Your task to perform on an android device: Open the phone app and click the voicemail tab. Image 0: 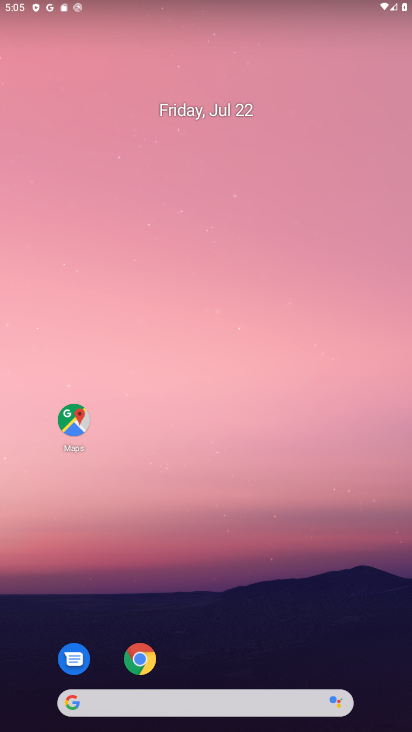
Step 0: press home button
Your task to perform on an android device: Open the phone app and click the voicemail tab. Image 1: 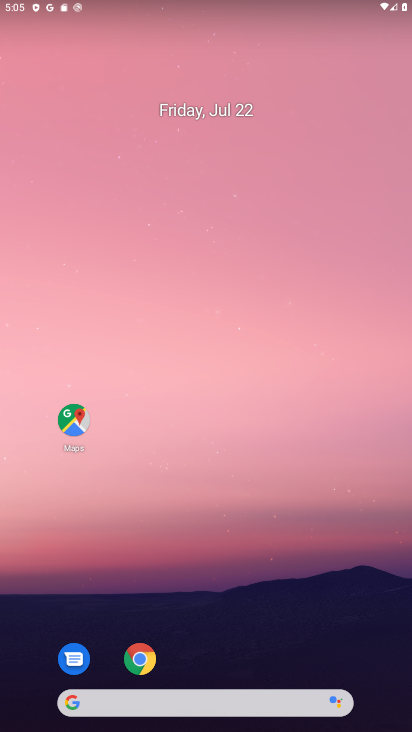
Step 1: drag from (219, 673) to (257, 1)
Your task to perform on an android device: Open the phone app and click the voicemail tab. Image 2: 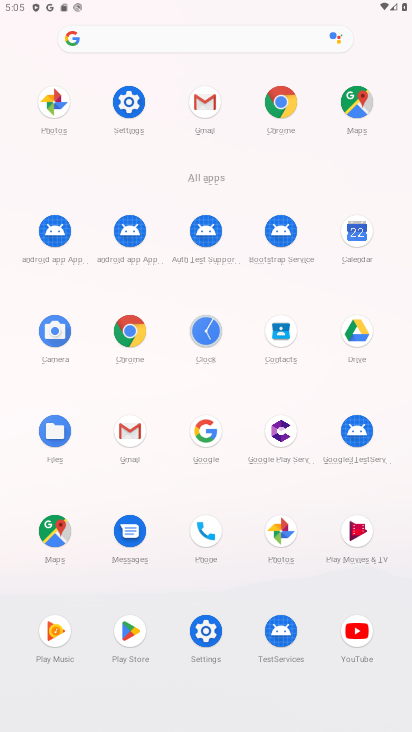
Step 2: click (198, 523)
Your task to perform on an android device: Open the phone app and click the voicemail tab. Image 3: 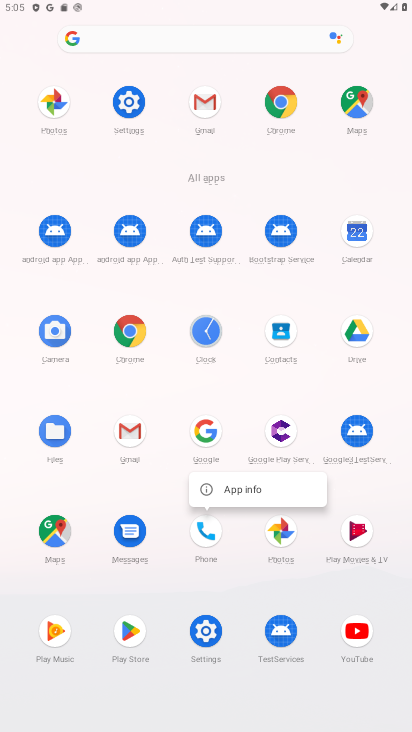
Step 3: click (198, 533)
Your task to perform on an android device: Open the phone app and click the voicemail tab. Image 4: 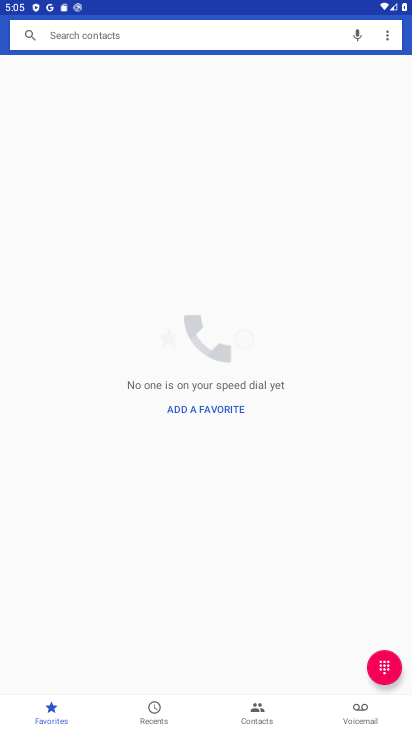
Step 4: click (362, 711)
Your task to perform on an android device: Open the phone app and click the voicemail tab. Image 5: 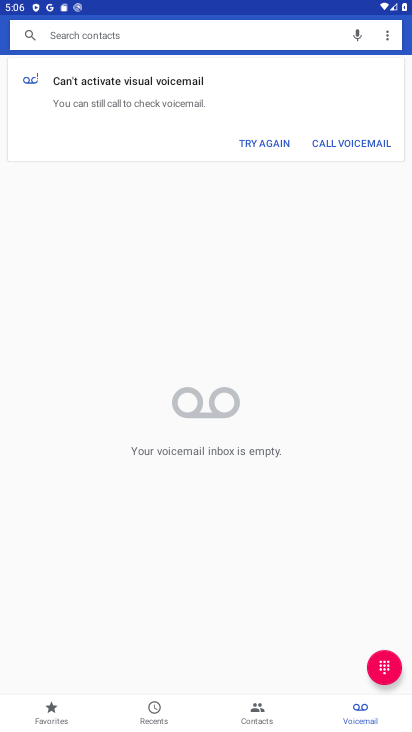
Step 5: task complete